Your task to perform on an android device: Show me popular videos on Youtube Image 0: 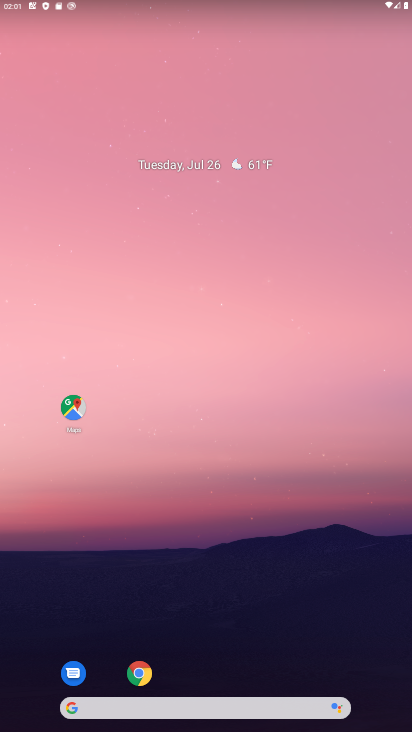
Step 0: drag from (172, 592) to (146, 121)
Your task to perform on an android device: Show me popular videos on Youtube Image 1: 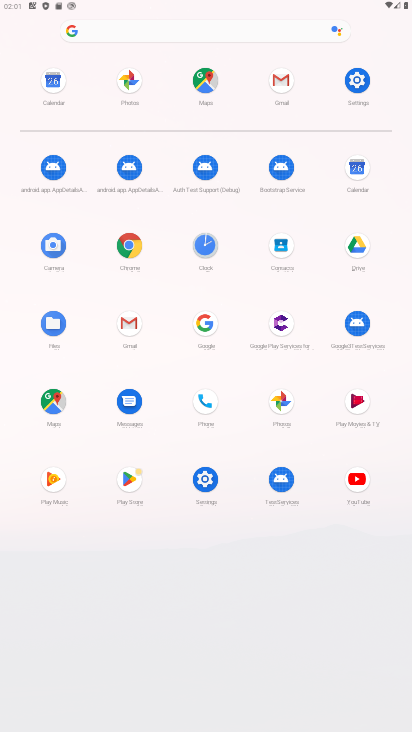
Step 1: click (360, 478)
Your task to perform on an android device: Show me popular videos on Youtube Image 2: 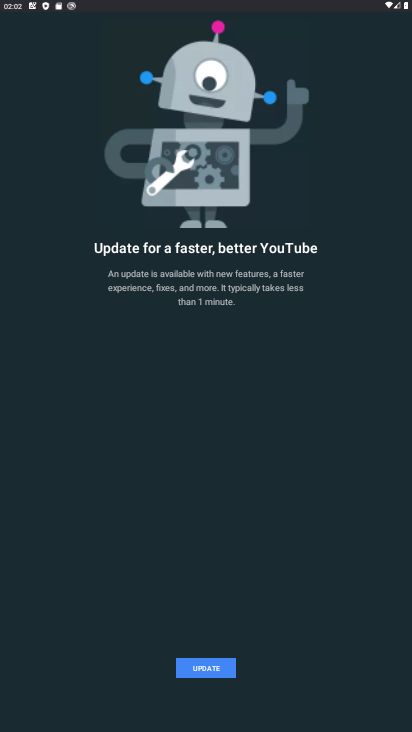
Step 2: task complete